Your task to perform on an android device: see creations saved in the google photos Image 0: 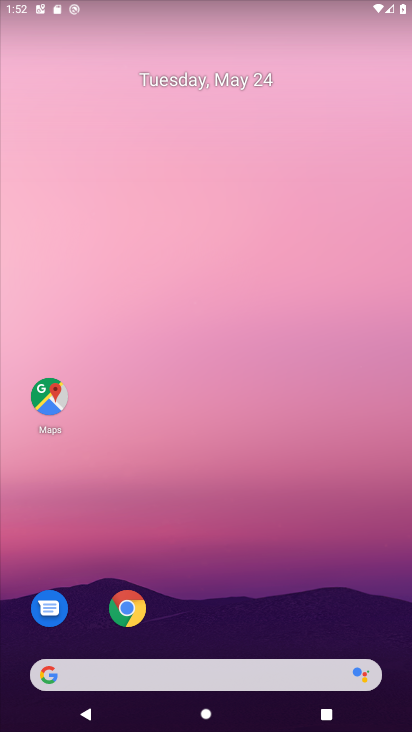
Step 0: drag from (341, 588) to (314, 8)
Your task to perform on an android device: see creations saved in the google photos Image 1: 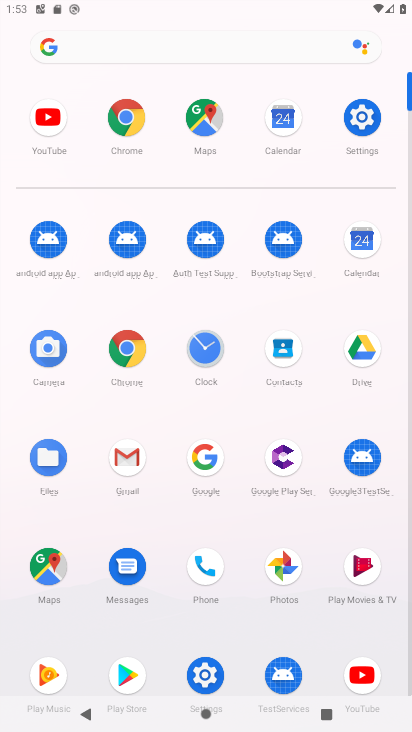
Step 1: click (285, 578)
Your task to perform on an android device: see creations saved in the google photos Image 2: 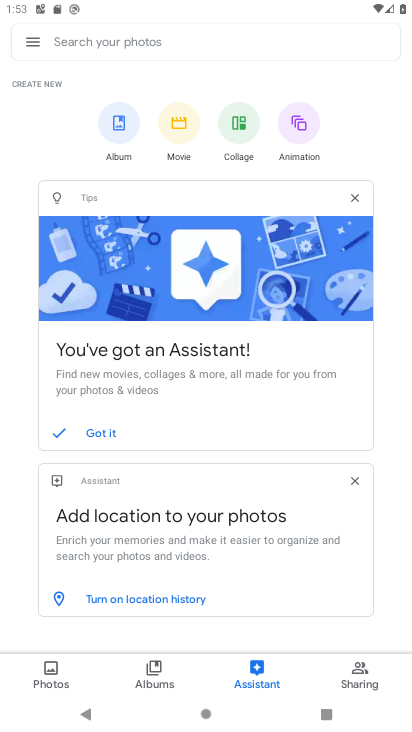
Step 2: click (151, 659)
Your task to perform on an android device: see creations saved in the google photos Image 3: 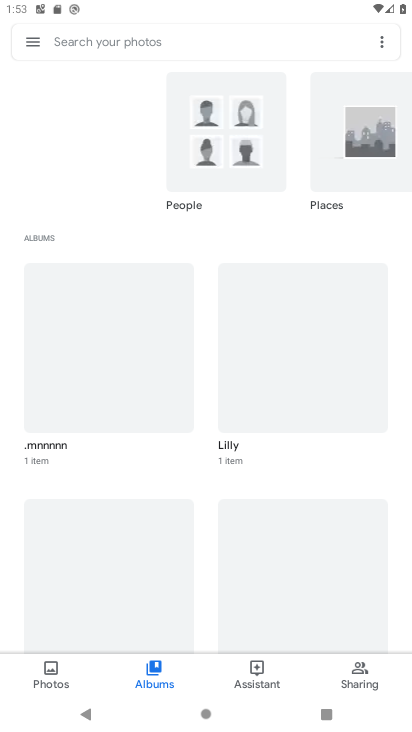
Step 3: task complete